Your task to perform on an android device: Go to Maps Image 0: 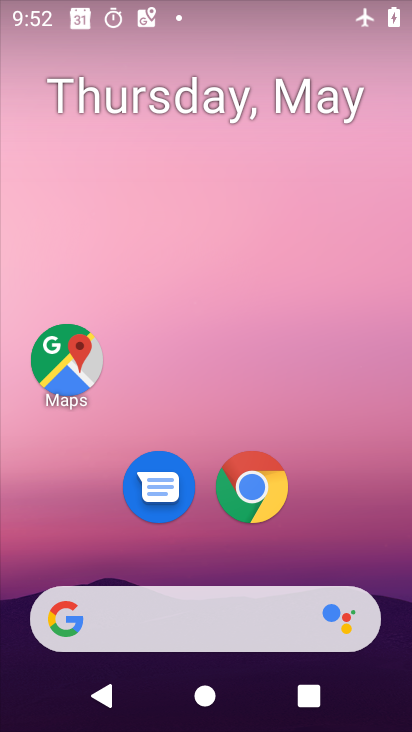
Step 0: drag from (236, 563) to (225, 208)
Your task to perform on an android device: Go to Maps Image 1: 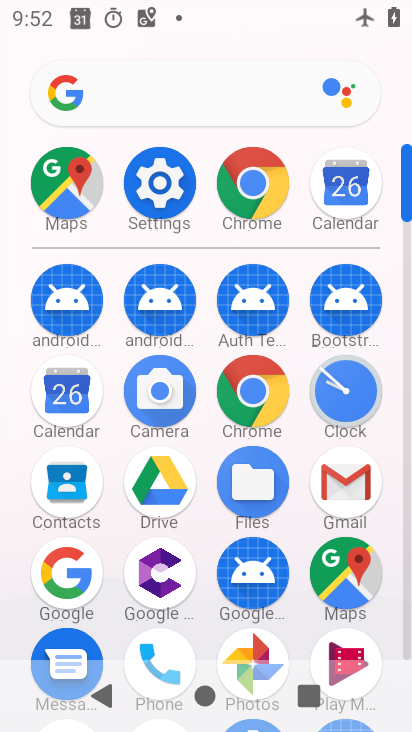
Step 1: click (348, 579)
Your task to perform on an android device: Go to Maps Image 2: 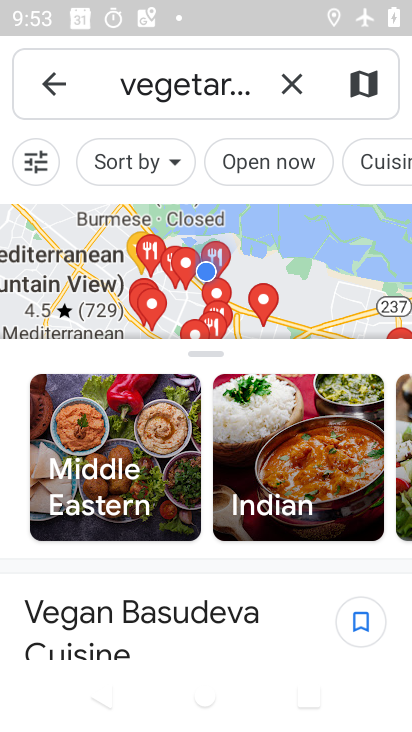
Step 2: task complete